Your task to perform on an android device: Search for seafood restaurants on Google Maps Image 0: 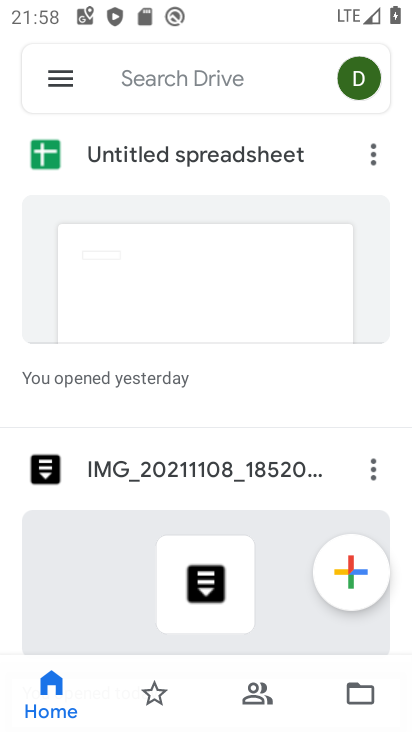
Step 0: press home button
Your task to perform on an android device: Search for seafood restaurants on Google Maps Image 1: 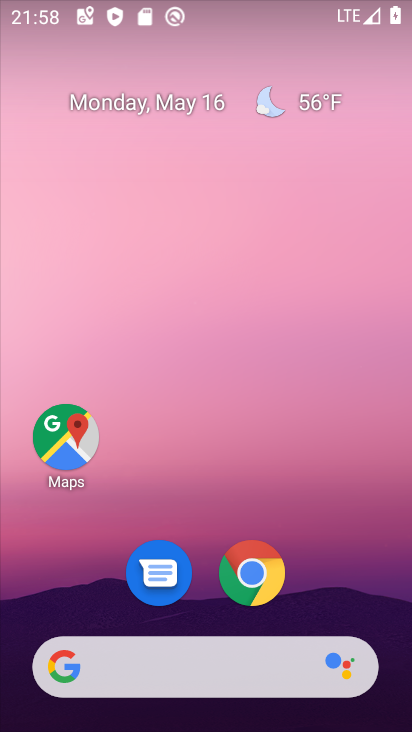
Step 1: drag from (226, 712) to (215, 143)
Your task to perform on an android device: Search for seafood restaurants on Google Maps Image 2: 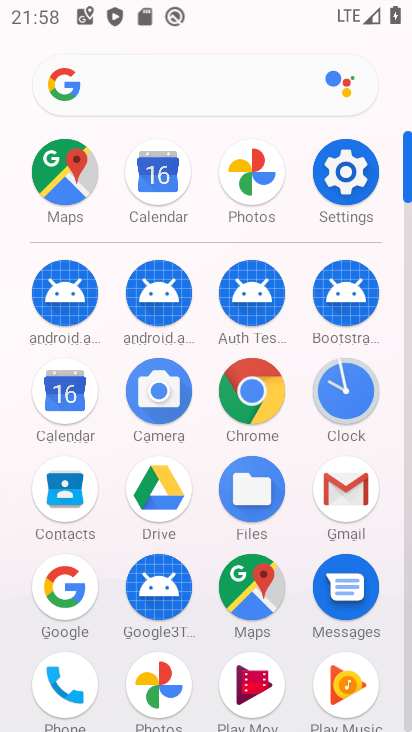
Step 2: click (257, 594)
Your task to perform on an android device: Search for seafood restaurants on Google Maps Image 3: 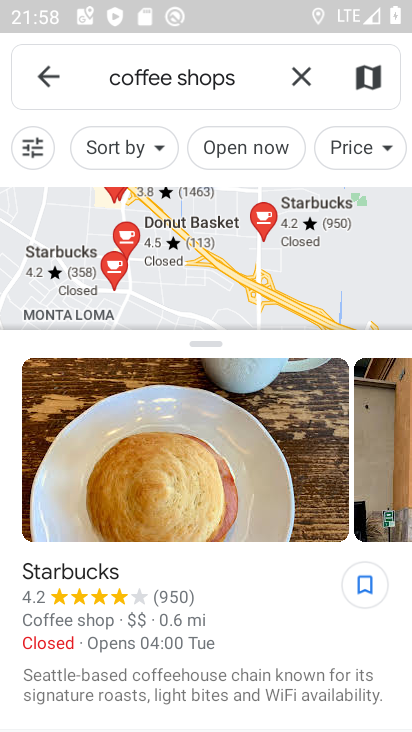
Step 3: click (297, 68)
Your task to perform on an android device: Search for seafood restaurants on Google Maps Image 4: 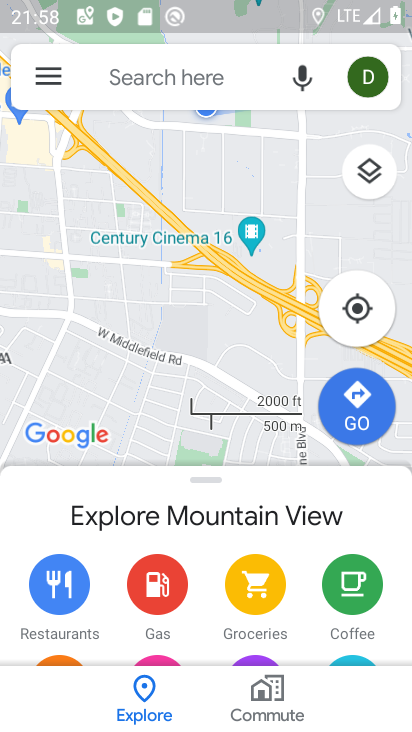
Step 4: click (176, 71)
Your task to perform on an android device: Search for seafood restaurants on Google Maps Image 5: 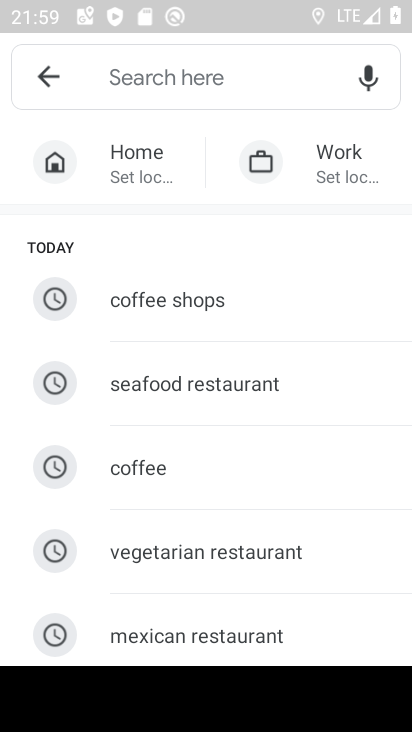
Step 5: type "seafood"
Your task to perform on an android device: Search for seafood restaurants on Google Maps Image 6: 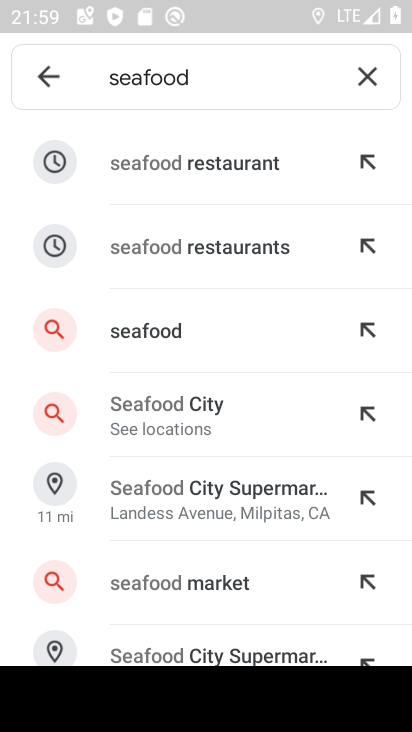
Step 6: type "restaurants"
Your task to perform on an android device: Search for seafood restaurants on Google Maps Image 7: 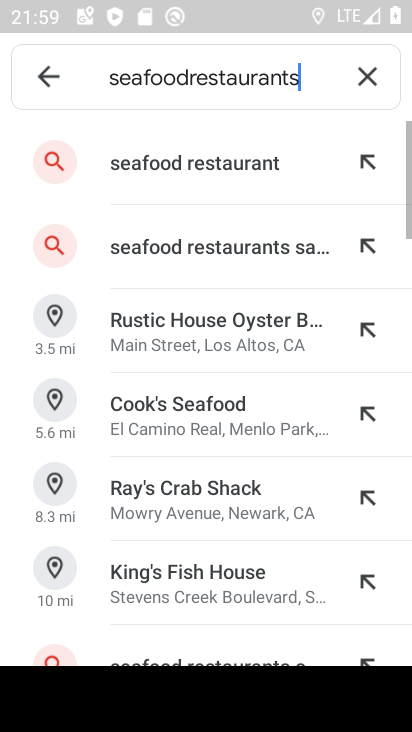
Step 7: click (182, 161)
Your task to perform on an android device: Search for seafood restaurants on Google Maps Image 8: 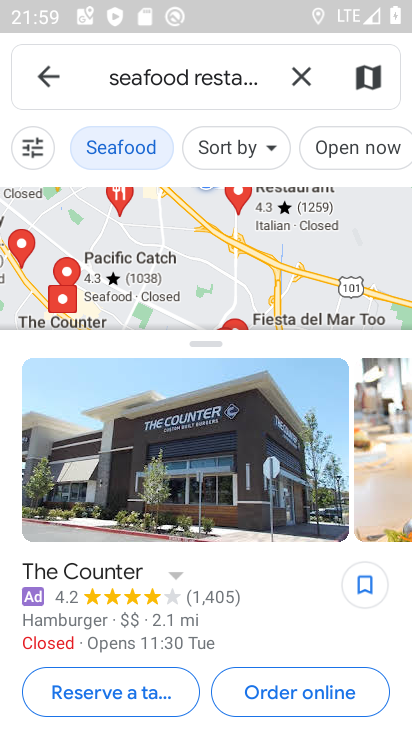
Step 8: task complete